Your task to perform on an android device: Open calendar and show me the fourth week of next month Image 0: 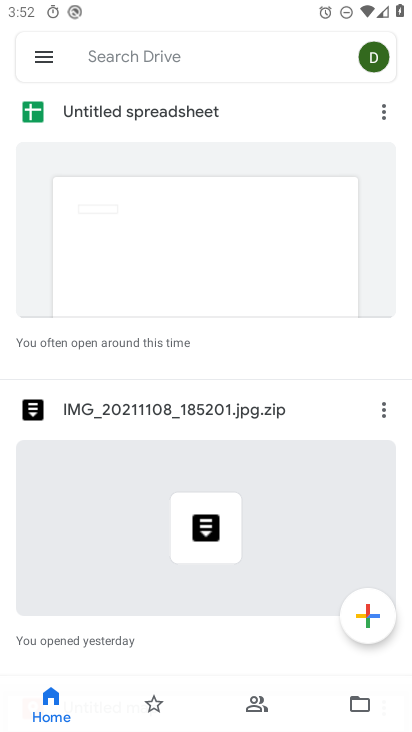
Step 0: press home button
Your task to perform on an android device: Open calendar and show me the fourth week of next month Image 1: 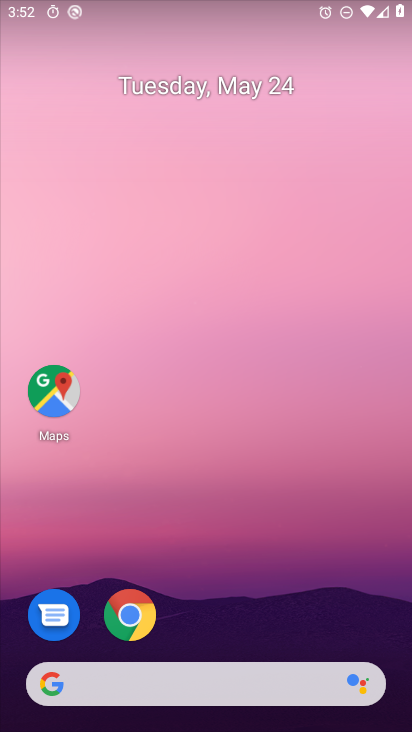
Step 1: drag from (235, 661) to (297, 183)
Your task to perform on an android device: Open calendar and show me the fourth week of next month Image 2: 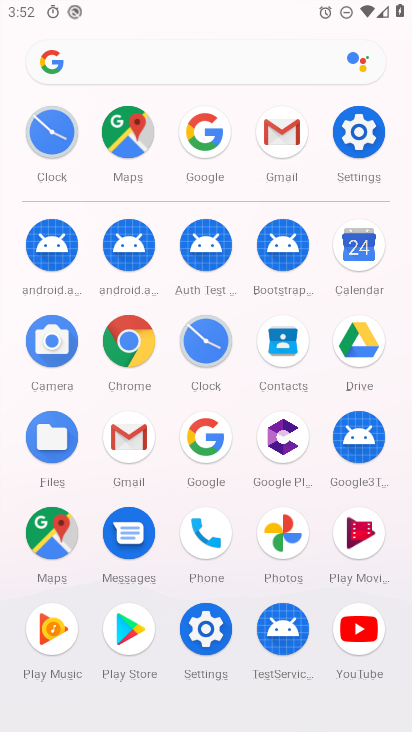
Step 2: click (362, 252)
Your task to perform on an android device: Open calendar and show me the fourth week of next month Image 3: 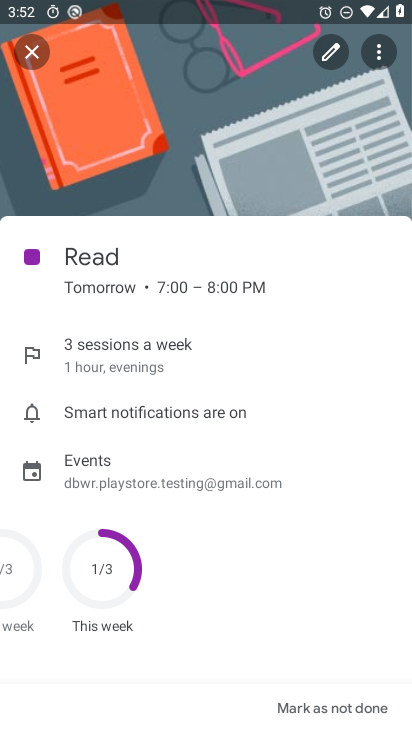
Step 3: click (22, 63)
Your task to perform on an android device: Open calendar and show me the fourth week of next month Image 4: 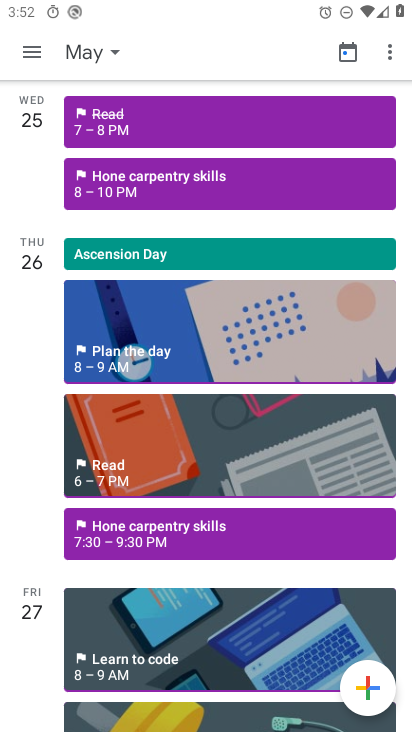
Step 4: click (97, 56)
Your task to perform on an android device: Open calendar and show me the fourth week of next month Image 5: 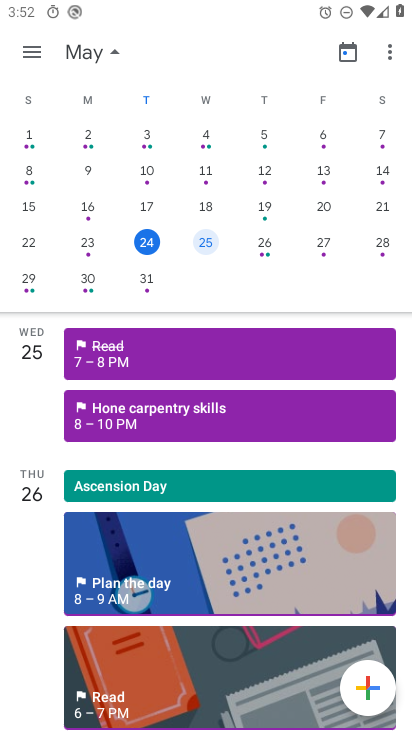
Step 5: drag from (393, 224) to (1, 233)
Your task to perform on an android device: Open calendar and show me the fourth week of next month Image 6: 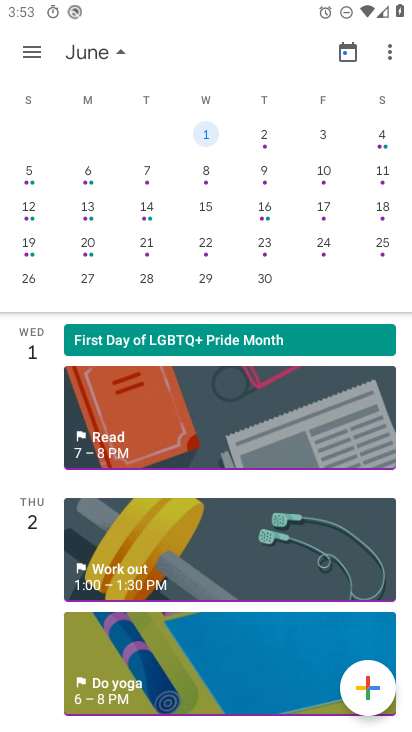
Step 6: click (29, 247)
Your task to perform on an android device: Open calendar and show me the fourth week of next month Image 7: 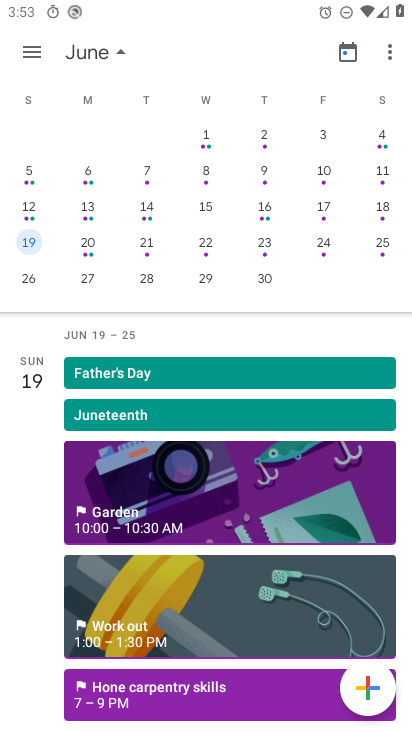
Step 7: task complete